Your task to perform on an android device: Open Wikipedia Image 0: 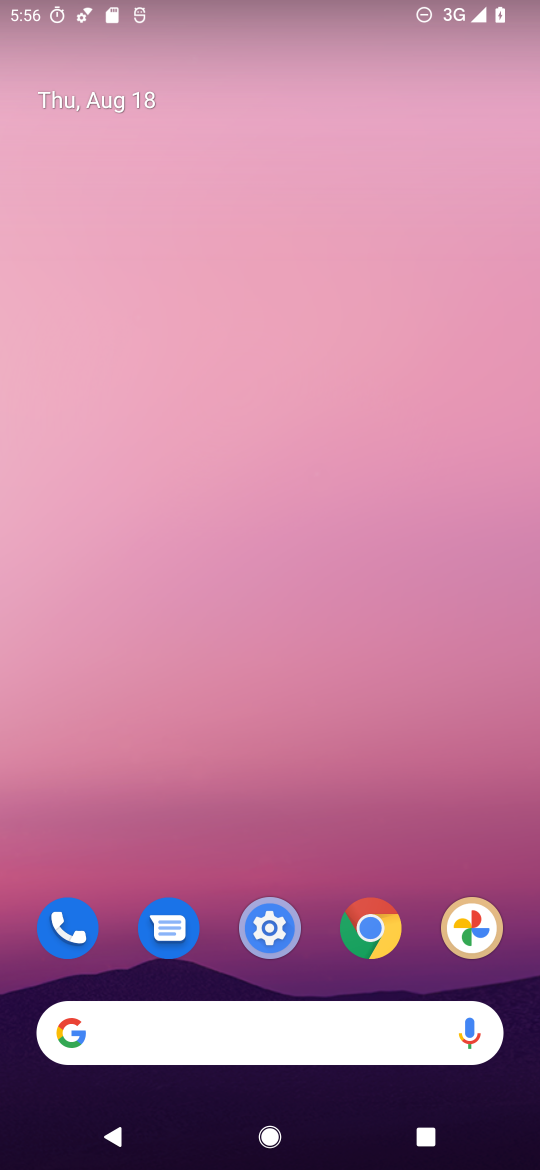
Step 0: drag from (421, 810) to (419, 80)
Your task to perform on an android device: Open Wikipedia Image 1: 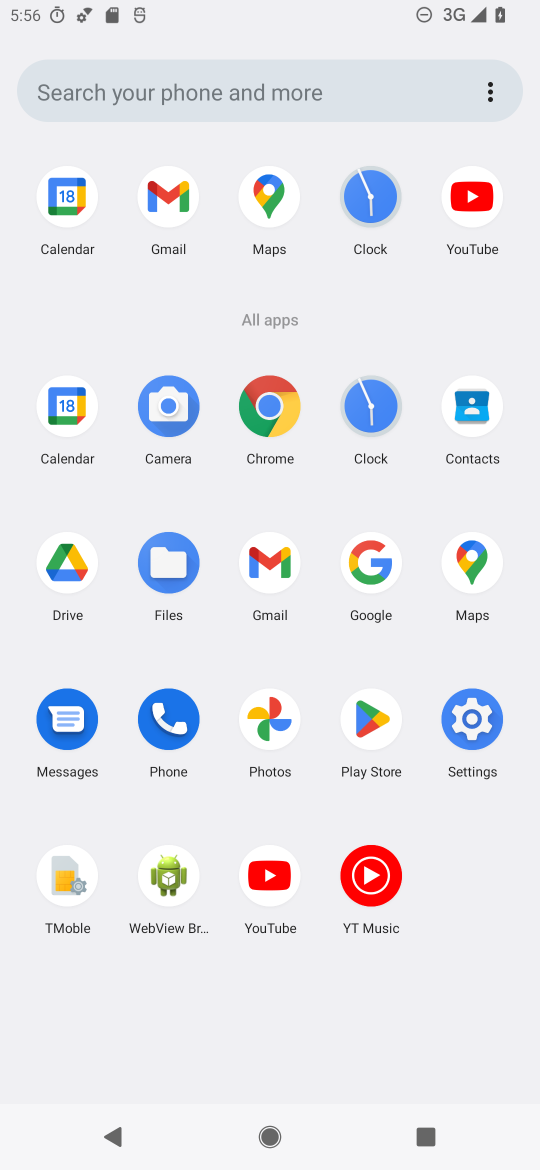
Step 1: click (265, 405)
Your task to perform on an android device: Open Wikipedia Image 2: 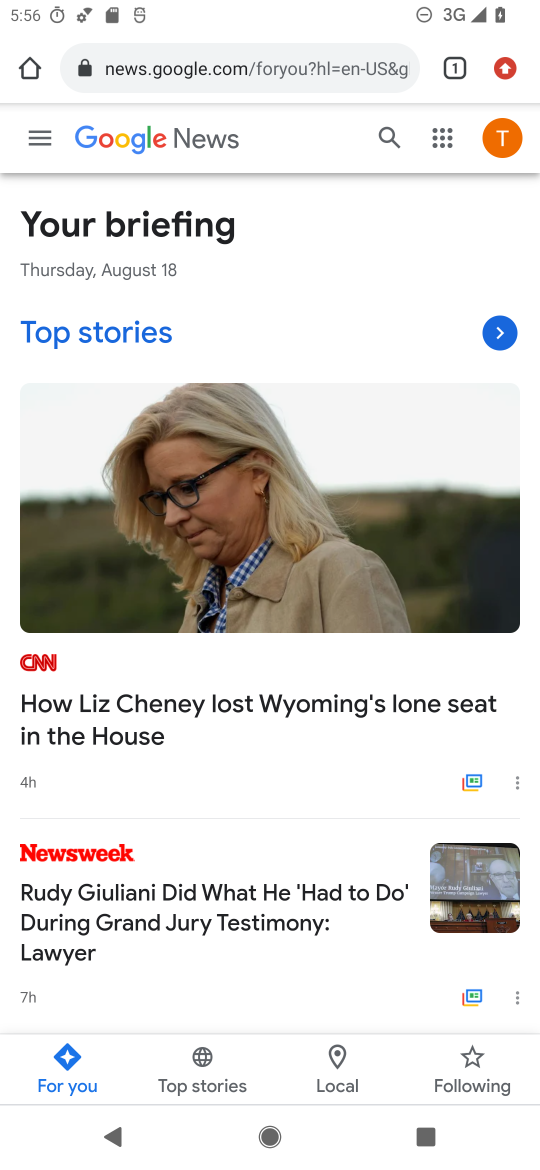
Step 2: click (295, 83)
Your task to perform on an android device: Open Wikipedia Image 3: 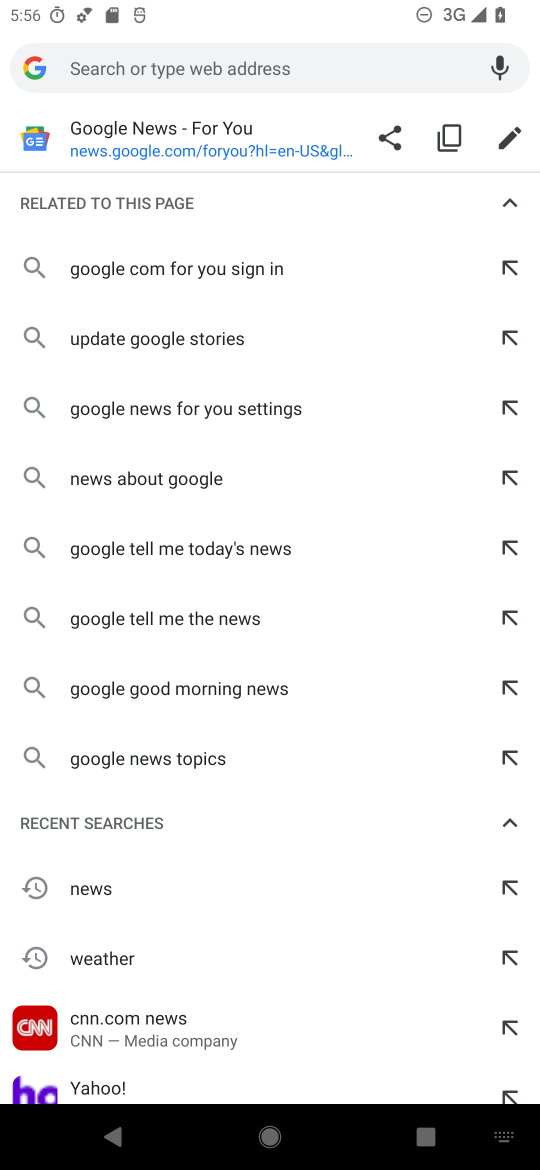
Step 3: type "wikipedia"
Your task to perform on an android device: Open Wikipedia Image 4: 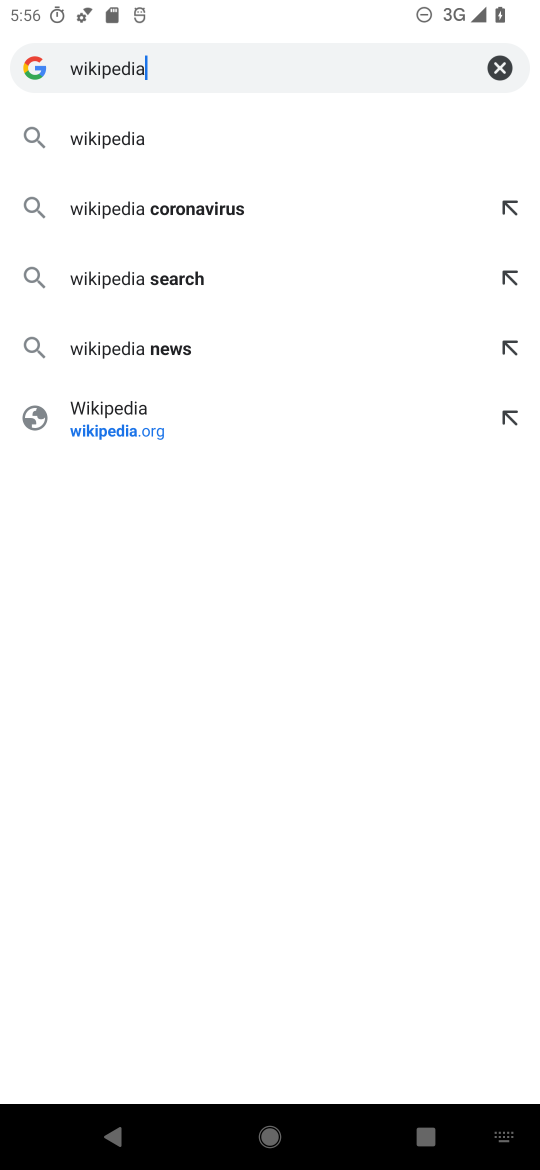
Step 4: click (136, 141)
Your task to perform on an android device: Open Wikipedia Image 5: 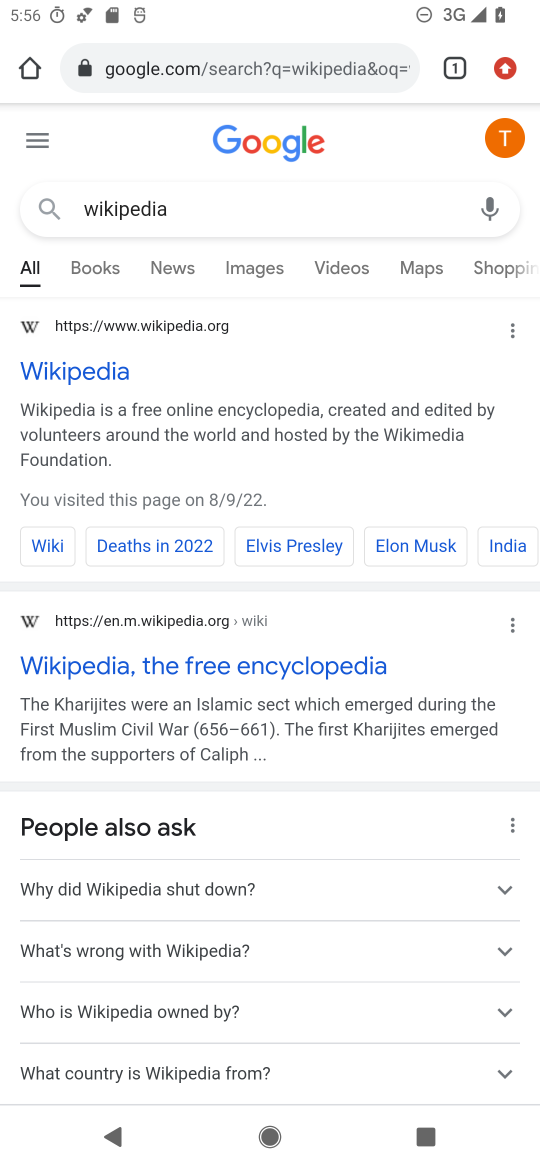
Step 5: click (121, 382)
Your task to perform on an android device: Open Wikipedia Image 6: 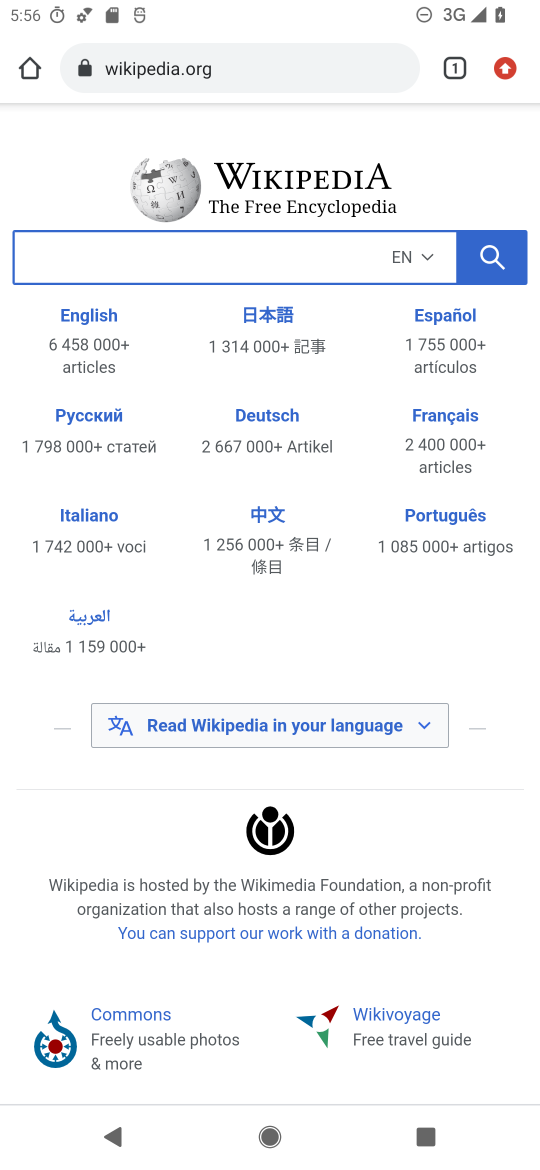
Step 6: task complete